Your task to perform on an android device: Open calendar and show me the third week of next month Image 0: 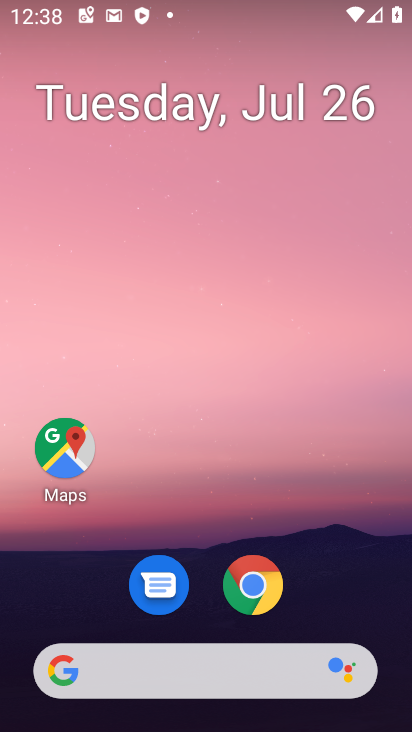
Step 0: click (317, 53)
Your task to perform on an android device: Open calendar and show me the third week of next month Image 1: 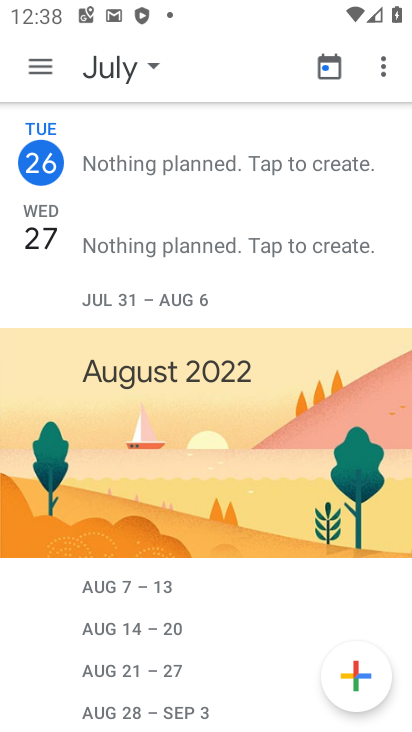
Step 1: click (107, 72)
Your task to perform on an android device: Open calendar and show me the third week of next month Image 2: 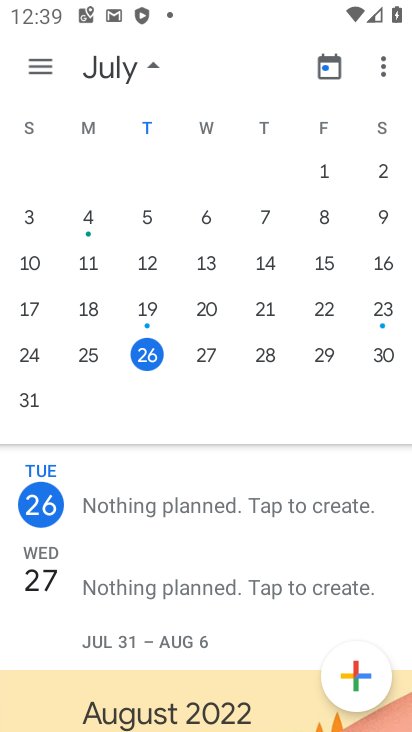
Step 2: drag from (345, 299) to (55, 283)
Your task to perform on an android device: Open calendar and show me the third week of next month Image 3: 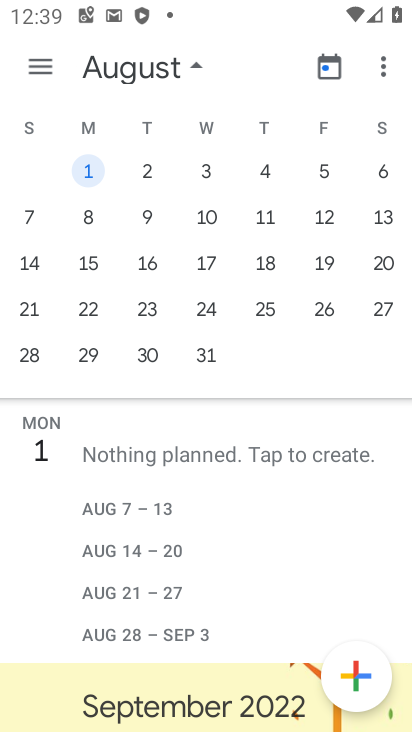
Step 3: click (37, 259)
Your task to perform on an android device: Open calendar and show me the third week of next month Image 4: 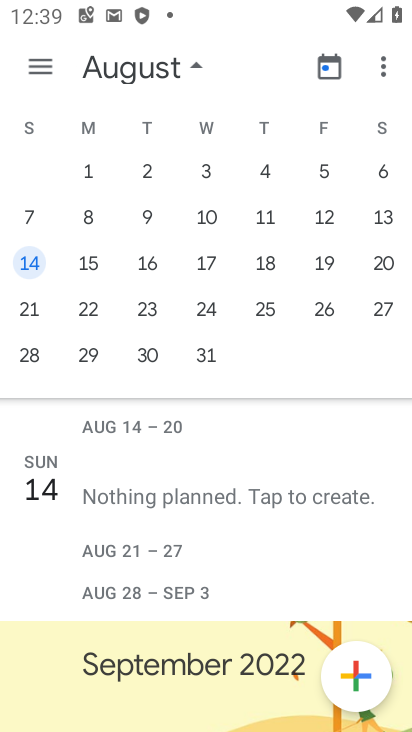
Step 4: click (34, 65)
Your task to perform on an android device: Open calendar and show me the third week of next month Image 5: 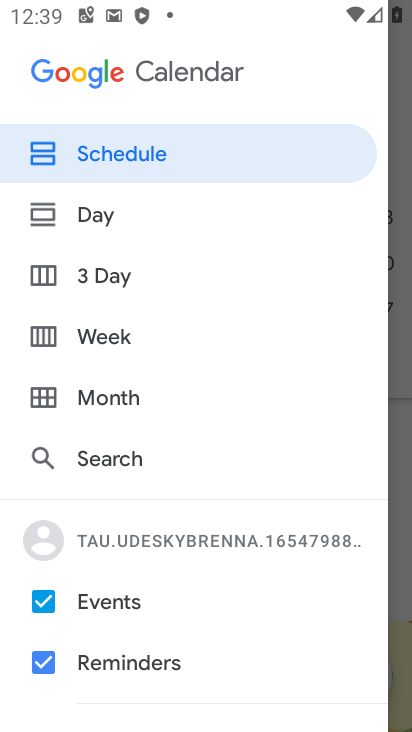
Step 5: click (117, 340)
Your task to perform on an android device: Open calendar and show me the third week of next month Image 6: 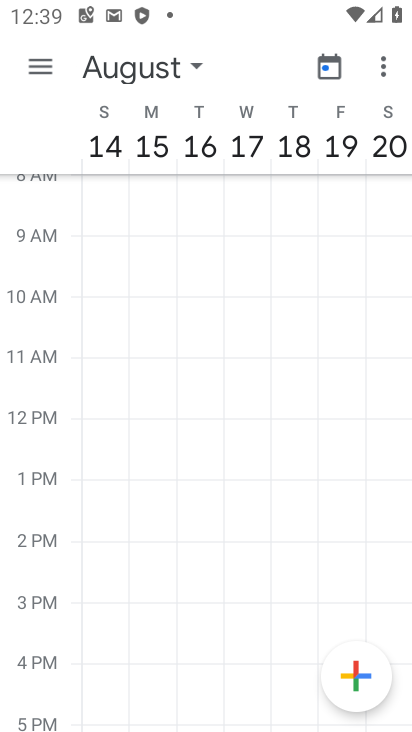
Step 6: task complete